Your task to perform on an android device: turn pop-ups off in chrome Image 0: 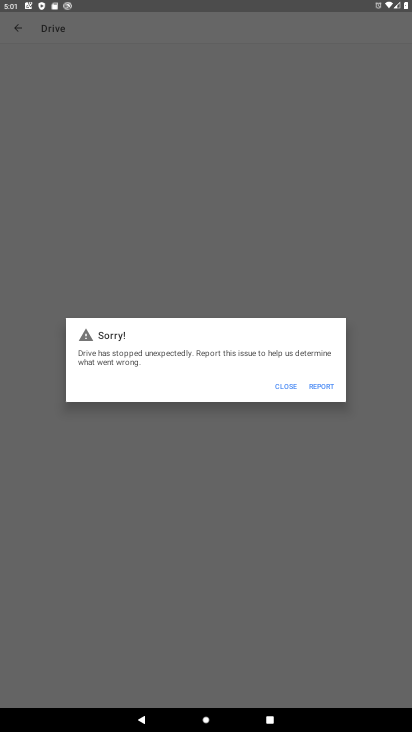
Step 0: press home button
Your task to perform on an android device: turn pop-ups off in chrome Image 1: 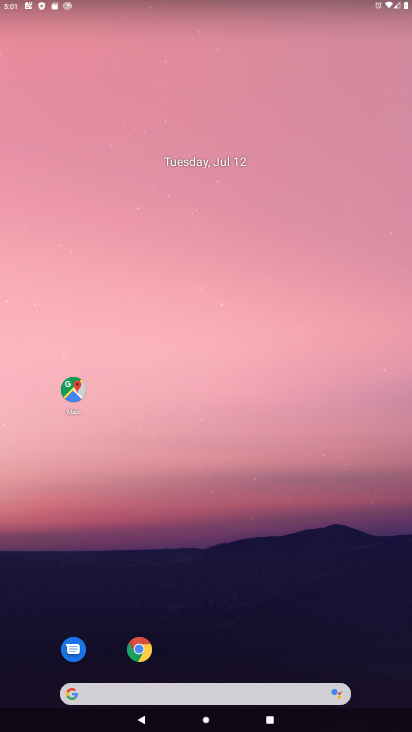
Step 1: click (141, 650)
Your task to perform on an android device: turn pop-ups off in chrome Image 2: 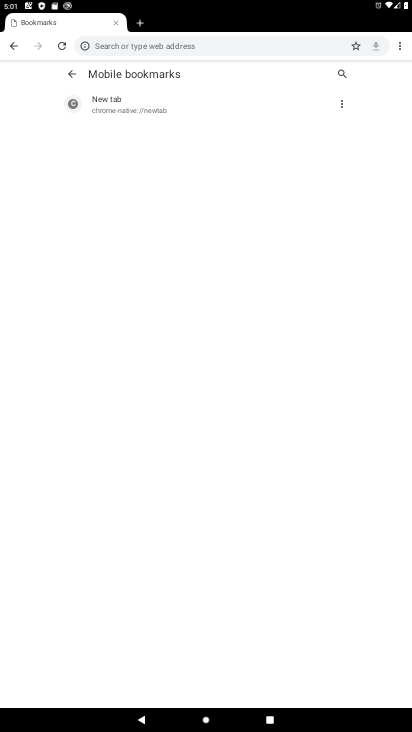
Step 2: click (399, 45)
Your task to perform on an android device: turn pop-ups off in chrome Image 3: 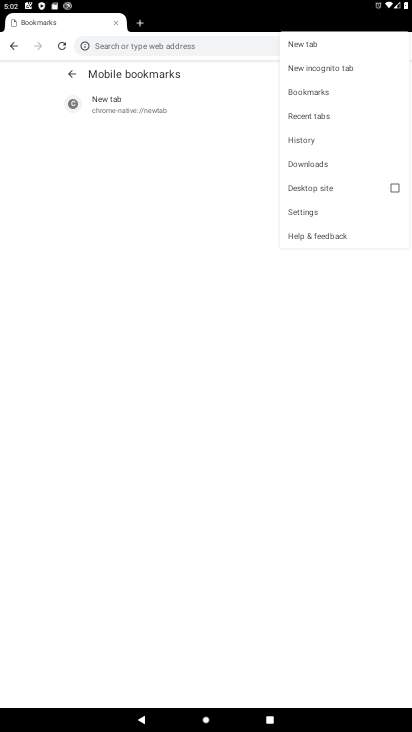
Step 3: click (308, 214)
Your task to perform on an android device: turn pop-ups off in chrome Image 4: 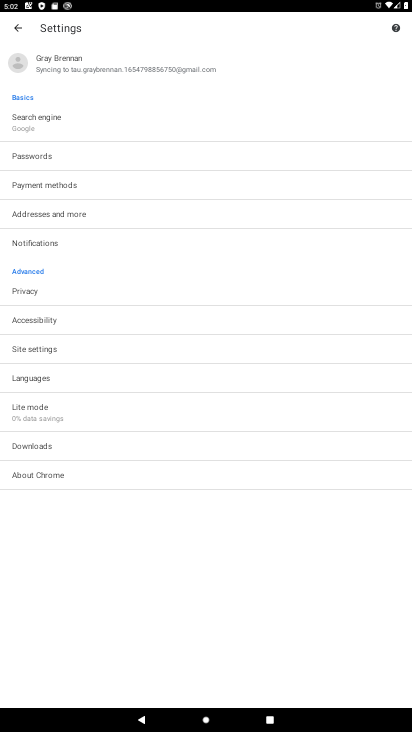
Step 4: click (34, 349)
Your task to perform on an android device: turn pop-ups off in chrome Image 5: 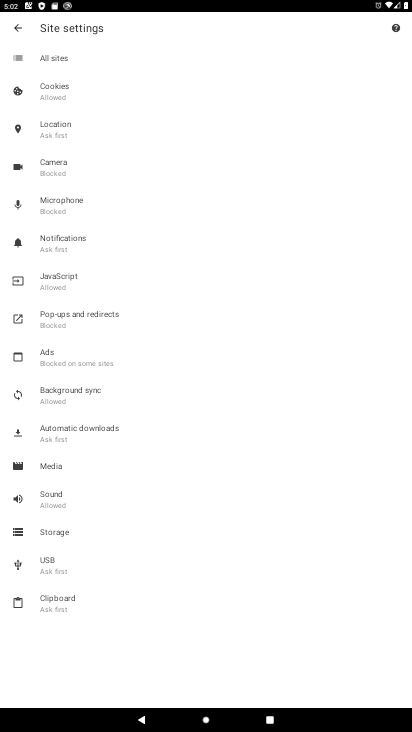
Step 5: click (62, 321)
Your task to perform on an android device: turn pop-ups off in chrome Image 6: 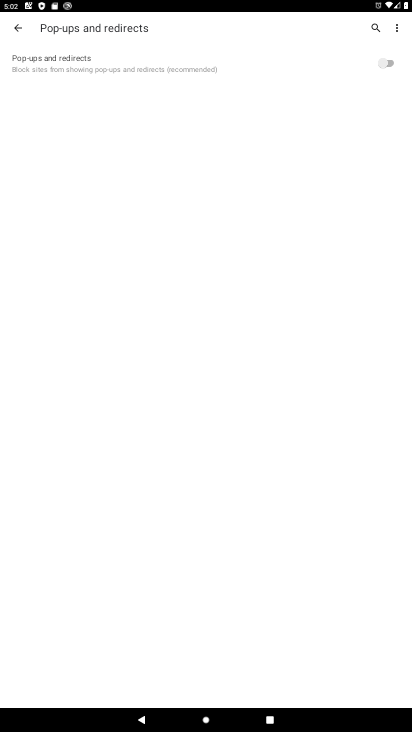
Step 6: task complete